Your task to perform on an android device: open sync settings in chrome Image 0: 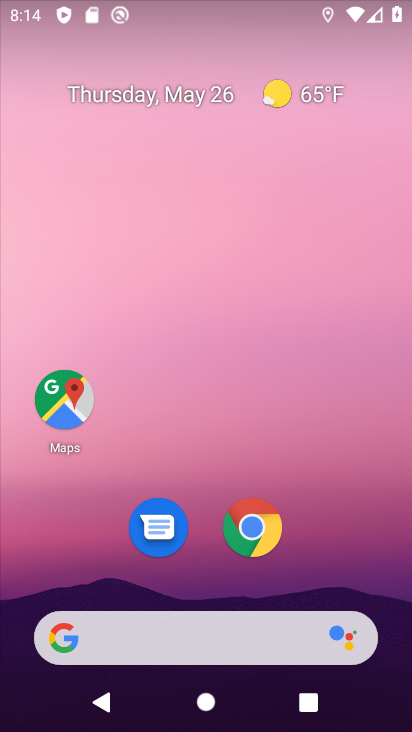
Step 0: drag from (293, 400) to (279, 42)
Your task to perform on an android device: open sync settings in chrome Image 1: 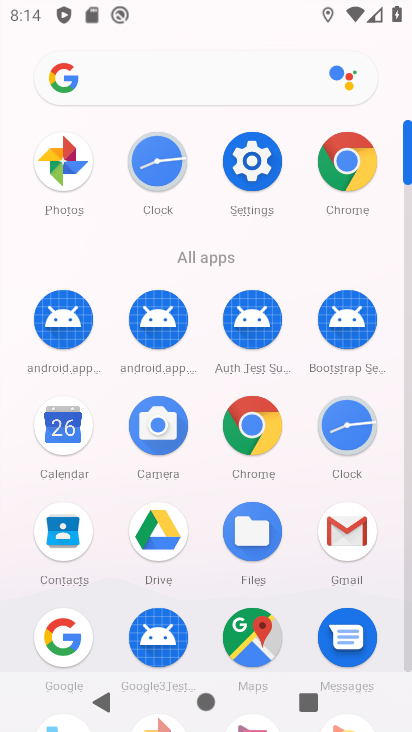
Step 1: click (343, 151)
Your task to perform on an android device: open sync settings in chrome Image 2: 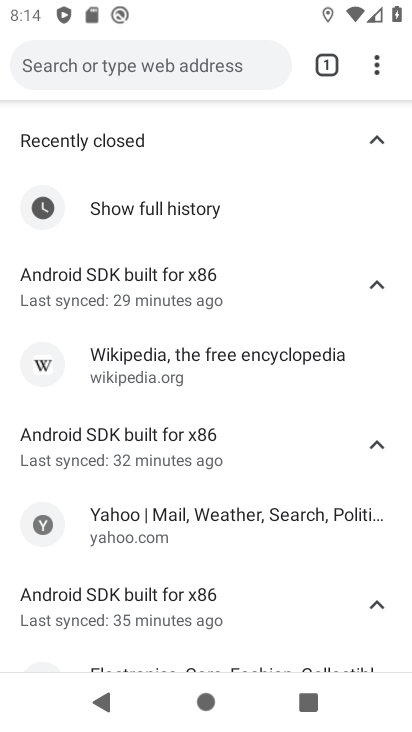
Step 2: drag from (385, 65) to (168, 544)
Your task to perform on an android device: open sync settings in chrome Image 3: 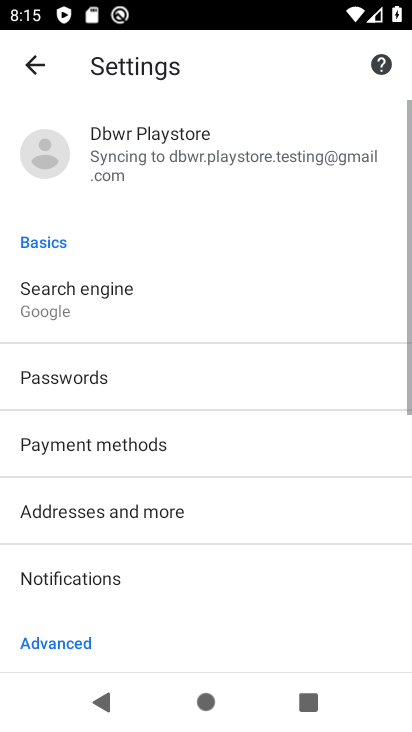
Step 3: drag from (168, 541) to (147, 121)
Your task to perform on an android device: open sync settings in chrome Image 4: 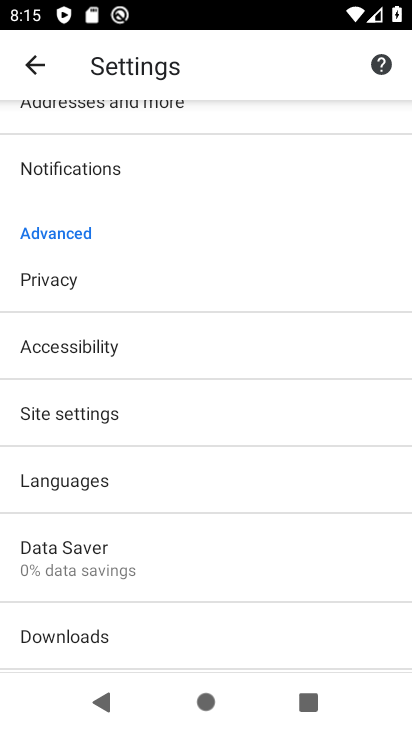
Step 4: click (88, 411)
Your task to perform on an android device: open sync settings in chrome Image 5: 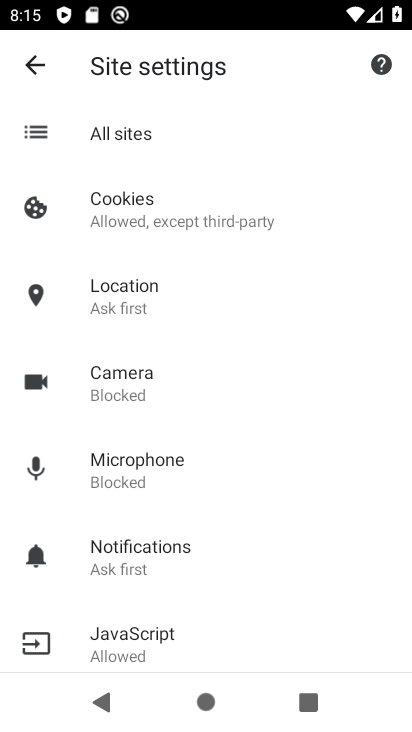
Step 5: drag from (166, 580) to (160, 122)
Your task to perform on an android device: open sync settings in chrome Image 6: 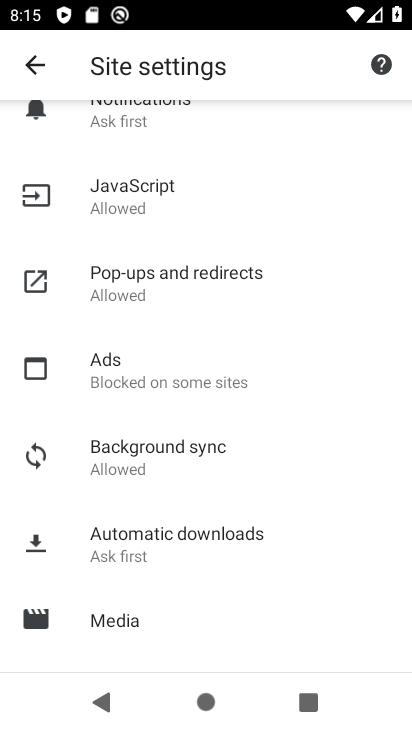
Step 6: click (144, 450)
Your task to perform on an android device: open sync settings in chrome Image 7: 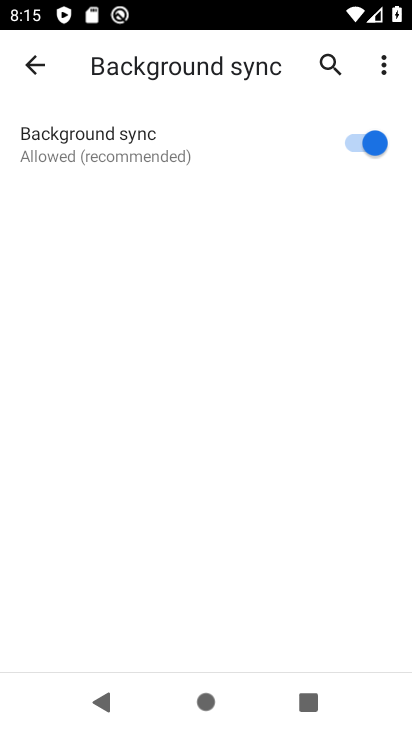
Step 7: task complete